Your task to perform on an android device: open a new tab in the chrome app Image 0: 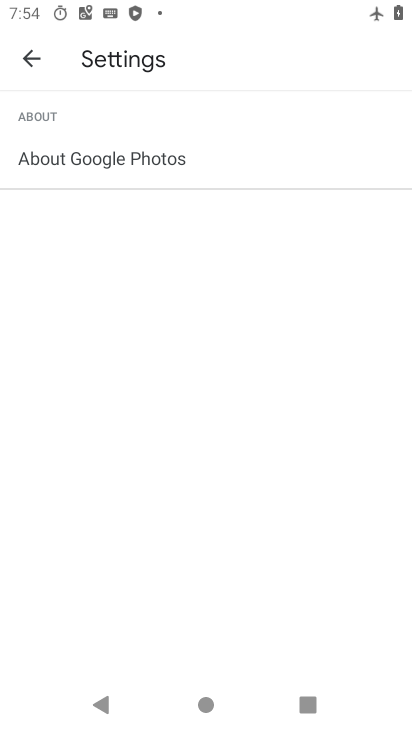
Step 0: press home button
Your task to perform on an android device: open a new tab in the chrome app Image 1: 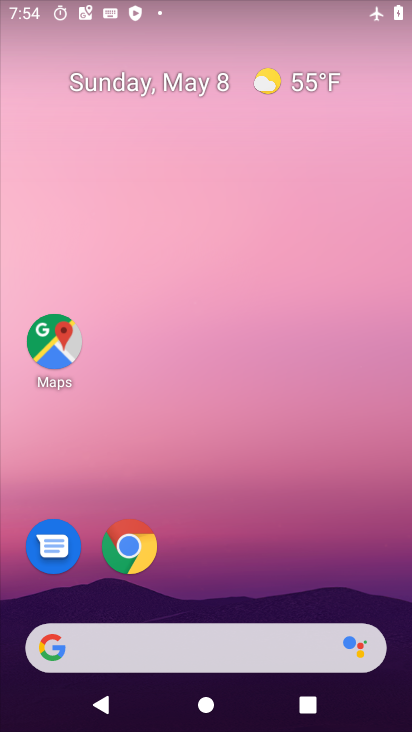
Step 1: click (131, 541)
Your task to perform on an android device: open a new tab in the chrome app Image 2: 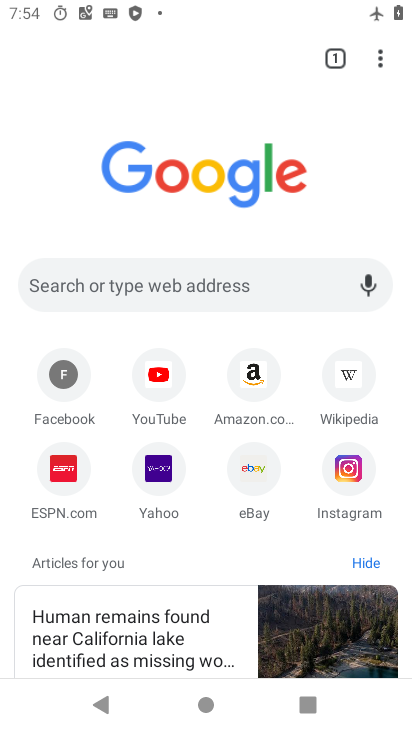
Step 2: click (377, 51)
Your task to perform on an android device: open a new tab in the chrome app Image 3: 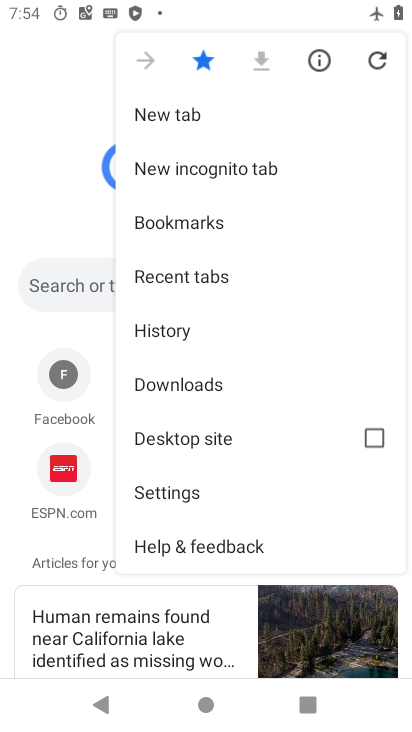
Step 3: click (286, 120)
Your task to perform on an android device: open a new tab in the chrome app Image 4: 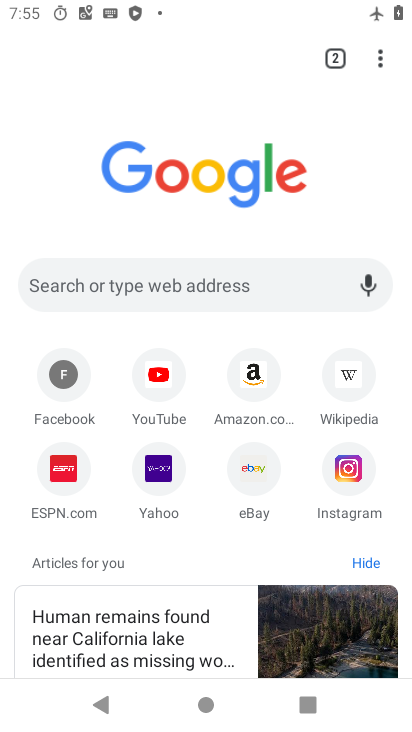
Step 4: task complete